Your task to perform on an android device: star an email in the gmail app Image 0: 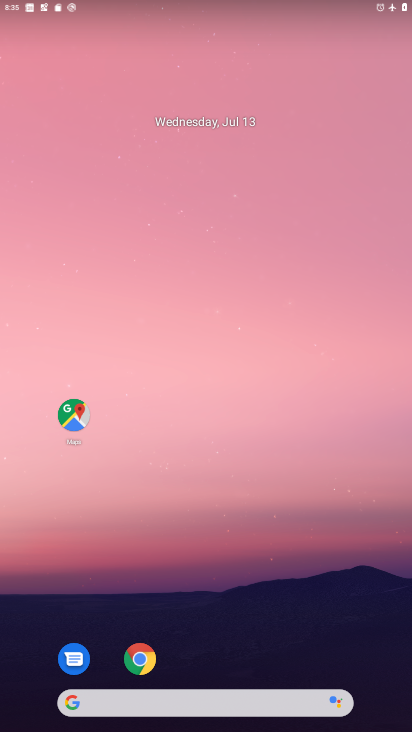
Step 0: drag from (232, 543) to (268, 64)
Your task to perform on an android device: star an email in the gmail app Image 1: 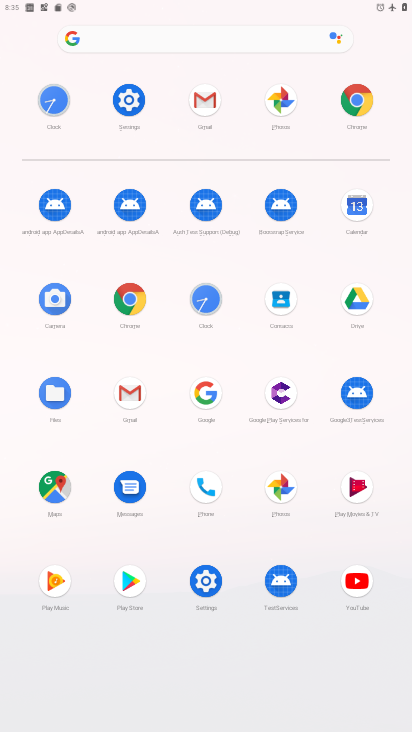
Step 1: click (203, 101)
Your task to perform on an android device: star an email in the gmail app Image 2: 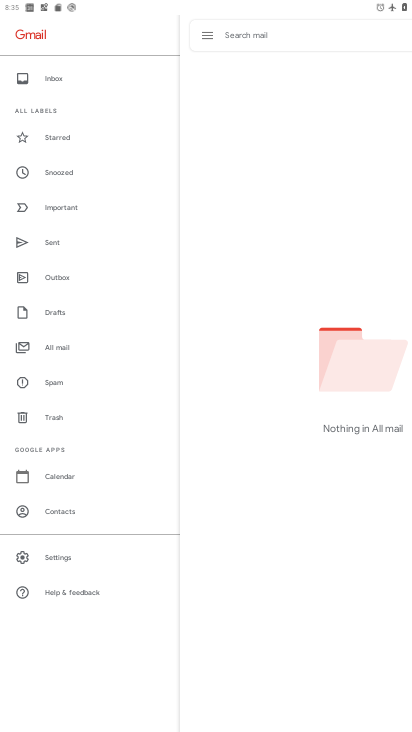
Step 2: click (56, 349)
Your task to perform on an android device: star an email in the gmail app Image 3: 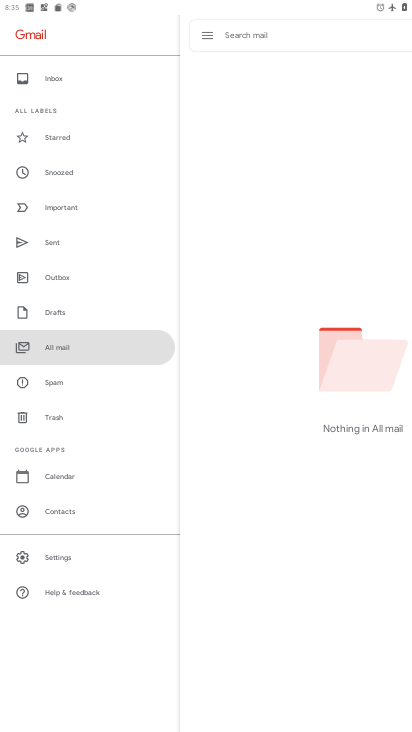
Step 3: click (76, 346)
Your task to perform on an android device: star an email in the gmail app Image 4: 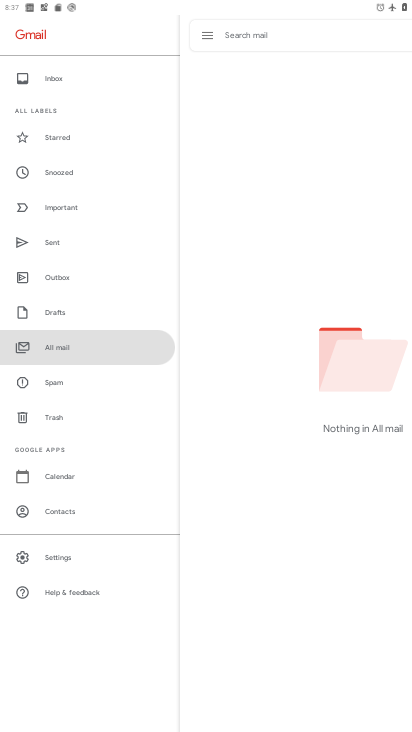
Step 4: task complete